Your task to perform on an android device: Go to Reddit.com Image 0: 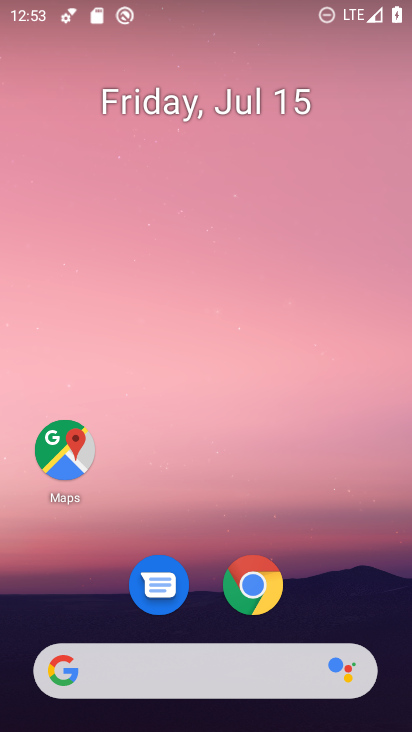
Step 0: click (289, 671)
Your task to perform on an android device: Go to Reddit.com Image 1: 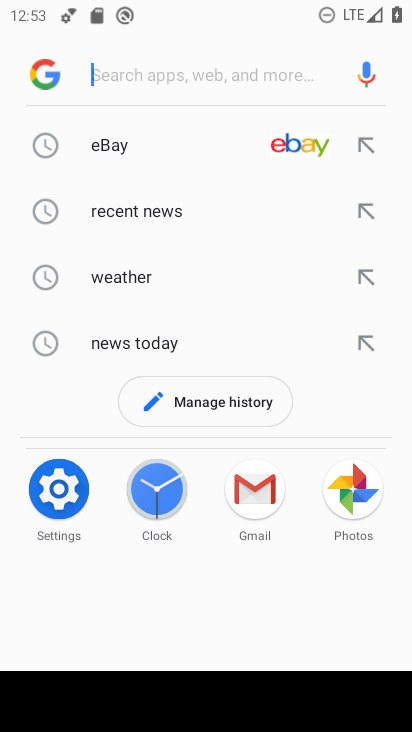
Step 1: type "reddit.com"
Your task to perform on an android device: Go to Reddit.com Image 2: 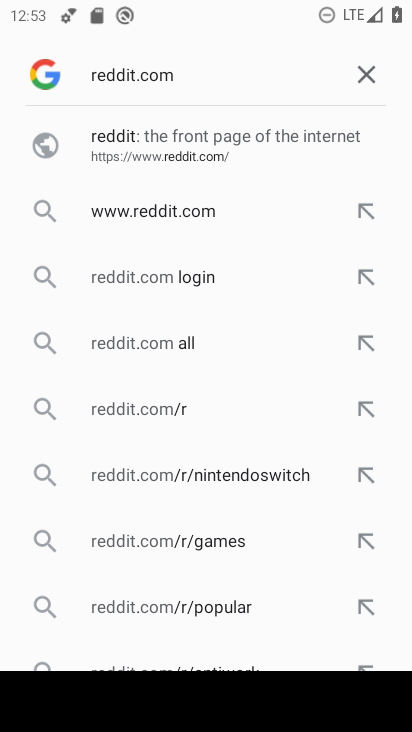
Step 2: click (118, 139)
Your task to perform on an android device: Go to Reddit.com Image 3: 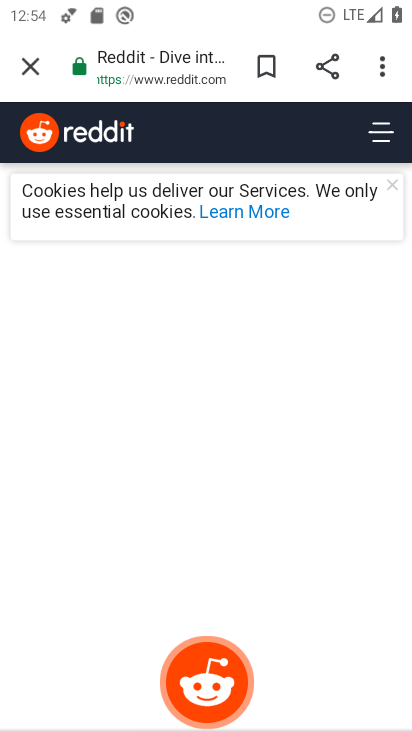
Step 3: task complete